Your task to perform on an android device: Go to internet settings Image 0: 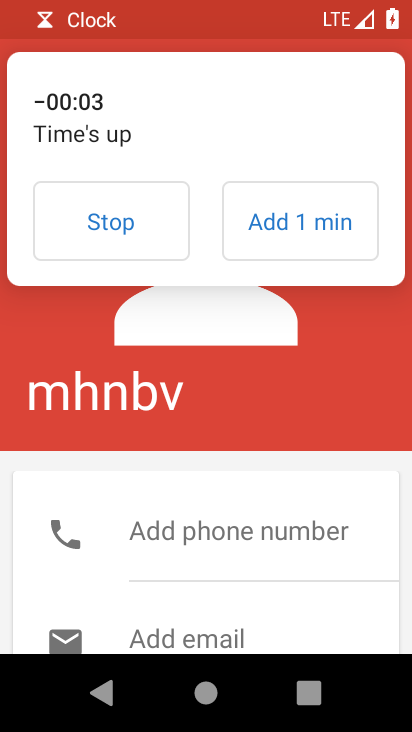
Step 0: click (89, 230)
Your task to perform on an android device: Go to internet settings Image 1: 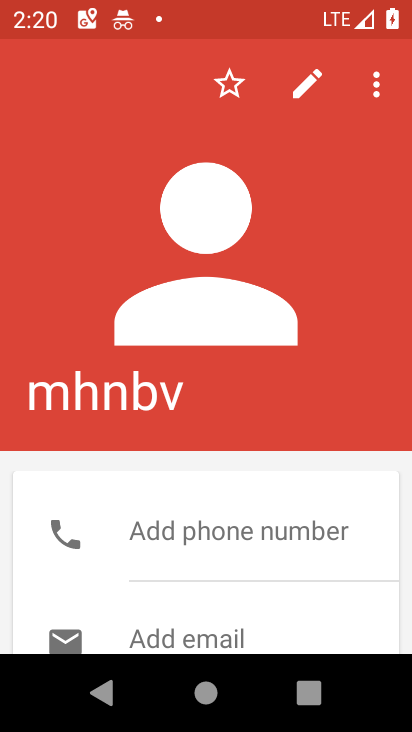
Step 1: press home button
Your task to perform on an android device: Go to internet settings Image 2: 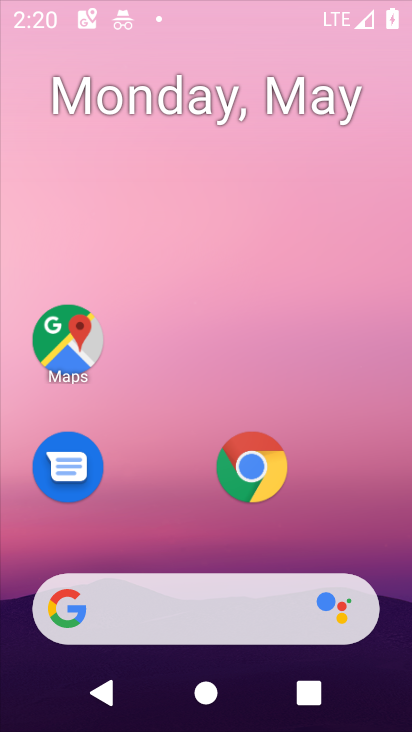
Step 2: drag from (214, 540) to (256, 97)
Your task to perform on an android device: Go to internet settings Image 3: 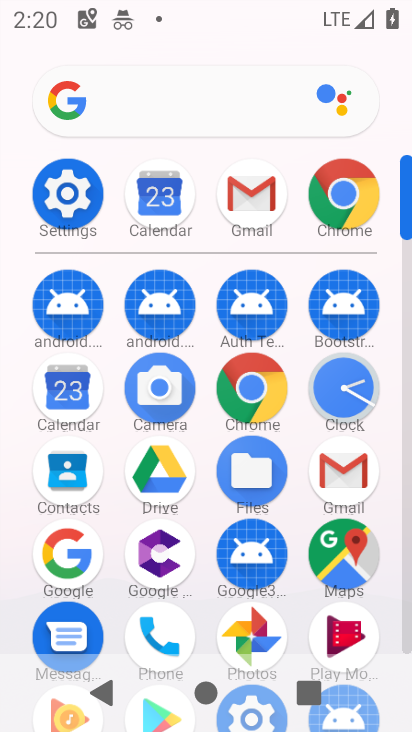
Step 3: click (65, 208)
Your task to perform on an android device: Go to internet settings Image 4: 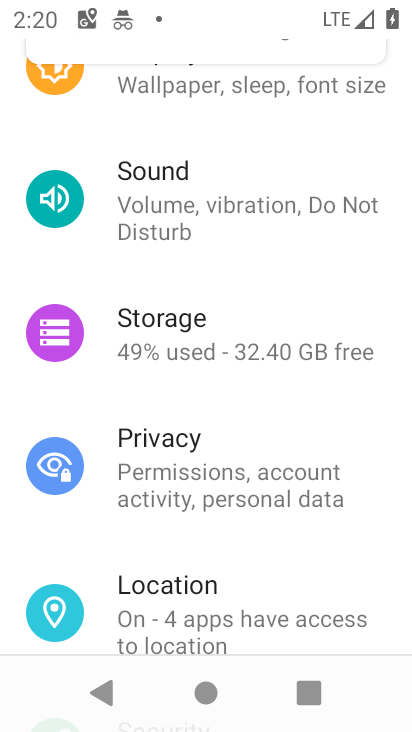
Step 4: drag from (182, 203) to (402, 722)
Your task to perform on an android device: Go to internet settings Image 5: 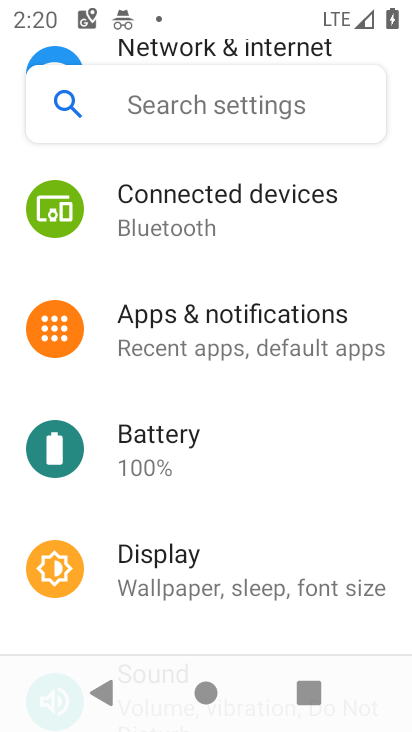
Step 5: drag from (196, 234) to (304, 703)
Your task to perform on an android device: Go to internet settings Image 6: 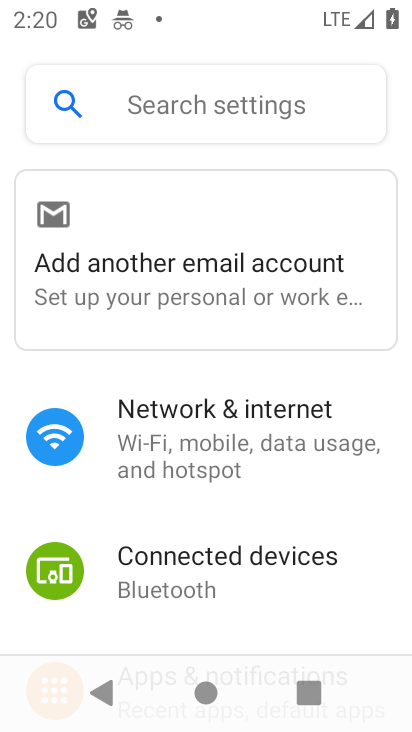
Step 6: click (182, 422)
Your task to perform on an android device: Go to internet settings Image 7: 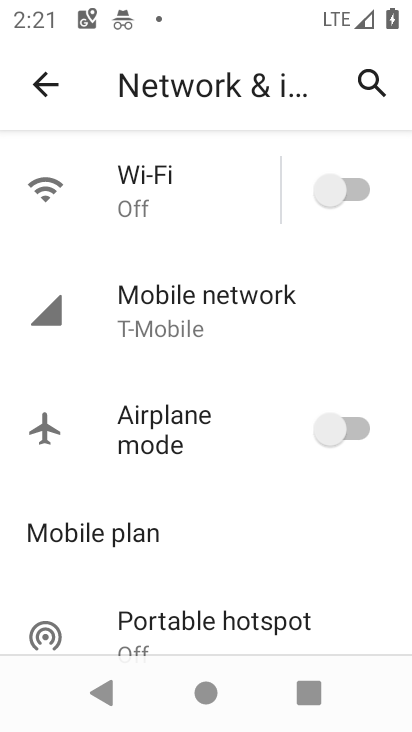
Step 7: click (201, 321)
Your task to perform on an android device: Go to internet settings Image 8: 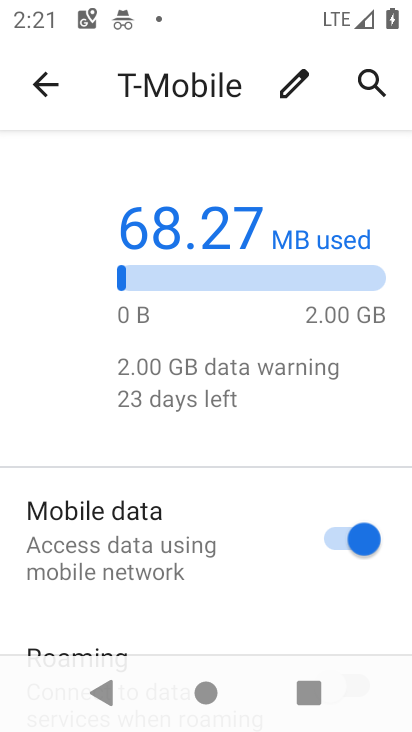
Step 8: task complete